Your task to perform on an android device: turn off notifications settings in the gmail app Image 0: 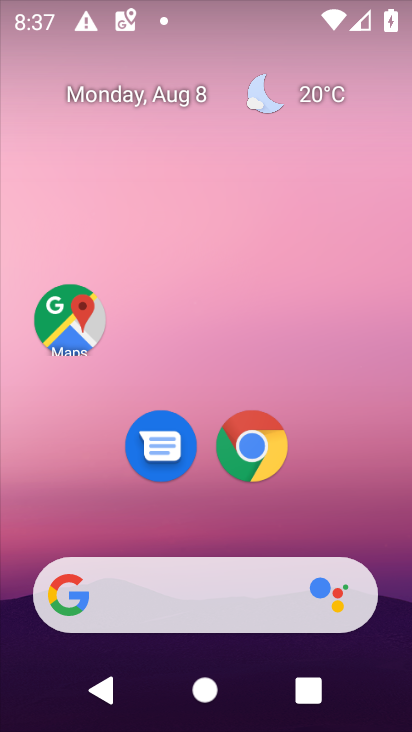
Step 0: drag from (389, 543) to (331, 87)
Your task to perform on an android device: turn off notifications settings in the gmail app Image 1: 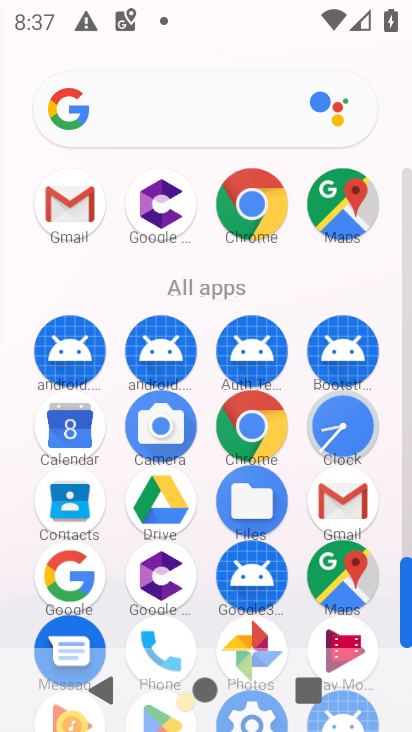
Step 1: click (344, 506)
Your task to perform on an android device: turn off notifications settings in the gmail app Image 2: 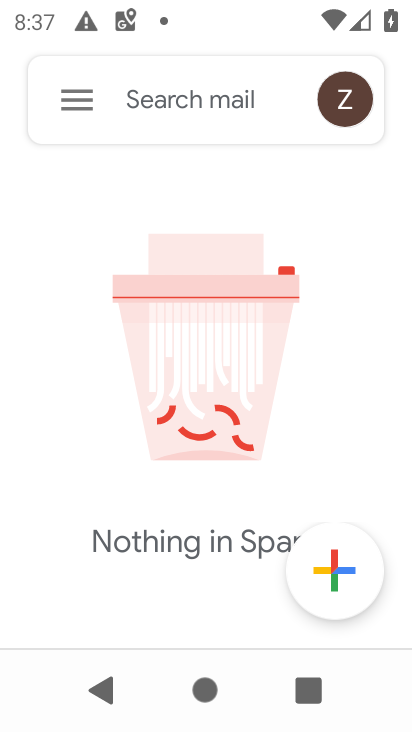
Step 2: click (69, 108)
Your task to perform on an android device: turn off notifications settings in the gmail app Image 3: 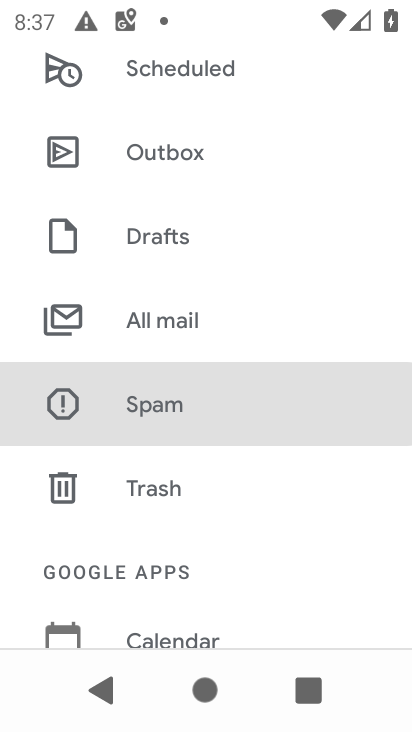
Step 3: drag from (269, 597) to (258, 249)
Your task to perform on an android device: turn off notifications settings in the gmail app Image 4: 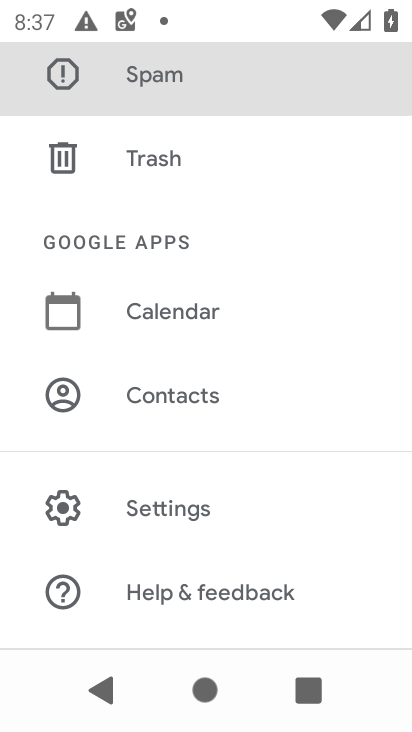
Step 4: click (144, 511)
Your task to perform on an android device: turn off notifications settings in the gmail app Image 5: 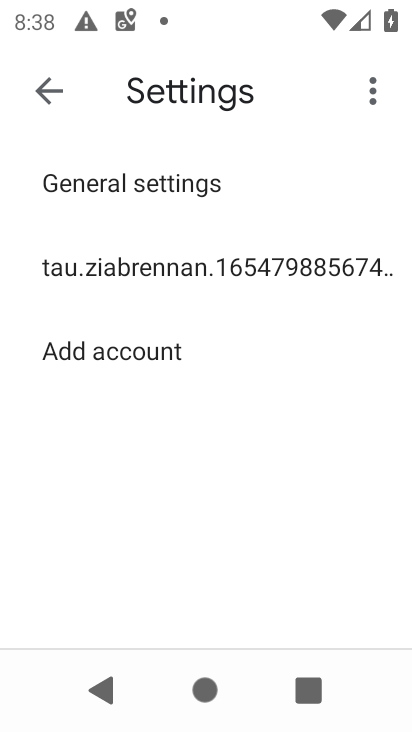
Step 5: click (178, 261)
Your task to perform on an android device: turn off notifications settings in the gmail app Image 6: 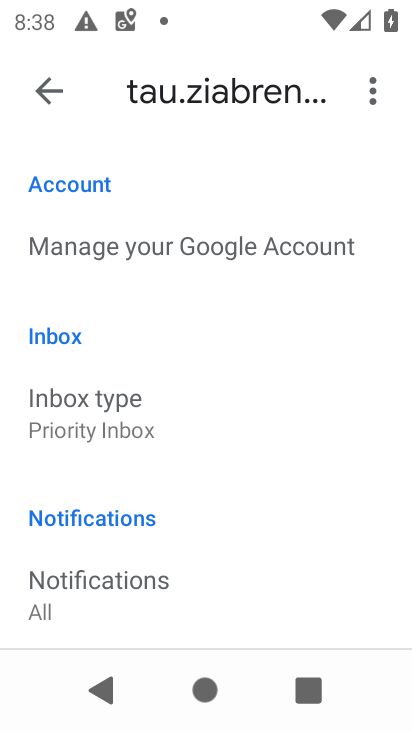
Step 6: drag from (192, 543) to (226, 192)
Your task to perform on an android device: turn off notifications settings in the gmail app Image 7: 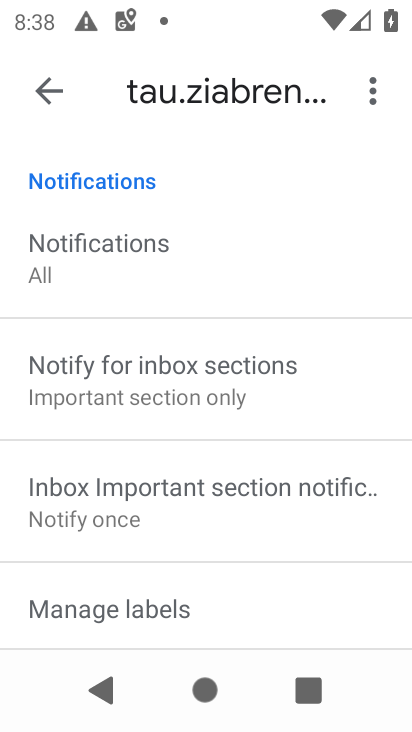
Step 7: drag from (278, 577) to (260, 198)
Your task to perform on an android device: turn off notifications settings in the gmail app Image 8: 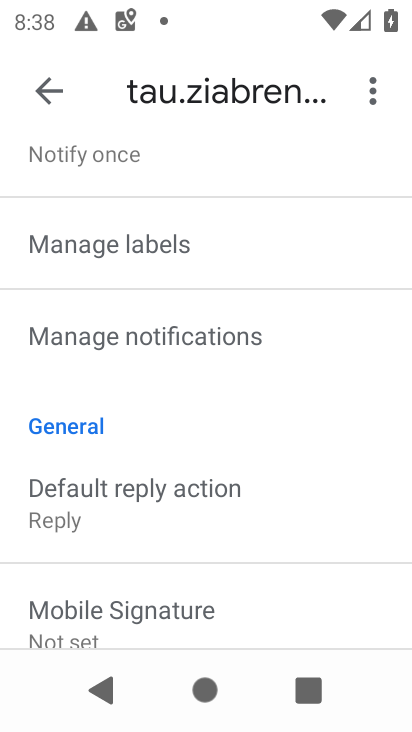
Step 8: click (173, 354)
Your task to perform on an android device: turn off notifications settings in the gmail app Image 9: 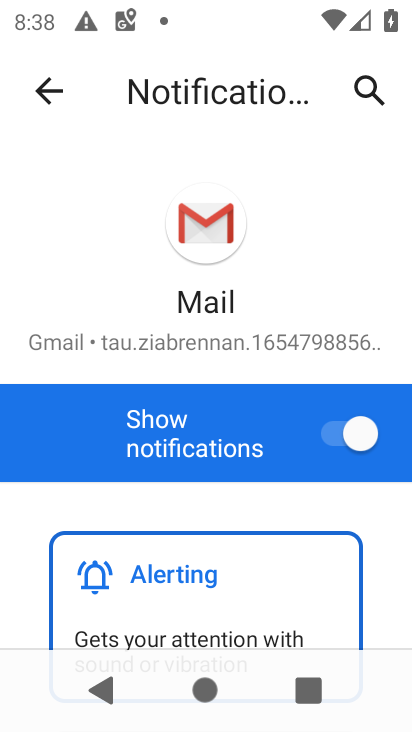
Step 9: click (336, 441)
Your task to perform on an android device: turn off notifications settings in the gmail app Image 10: 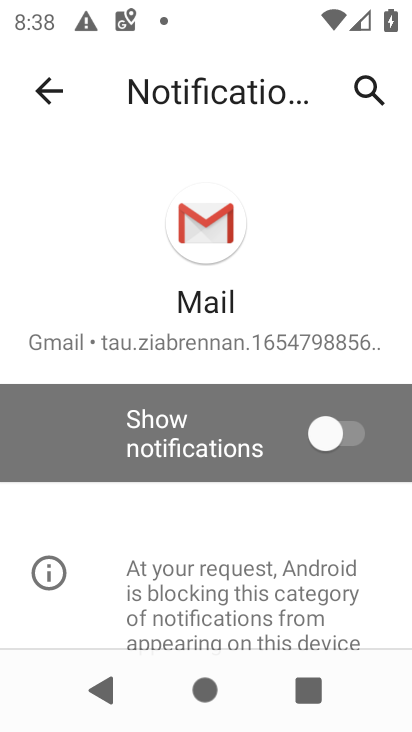
Step 10: task complete